Your task to perform on an android device: What's the weather going to be this weekend? Image 0: 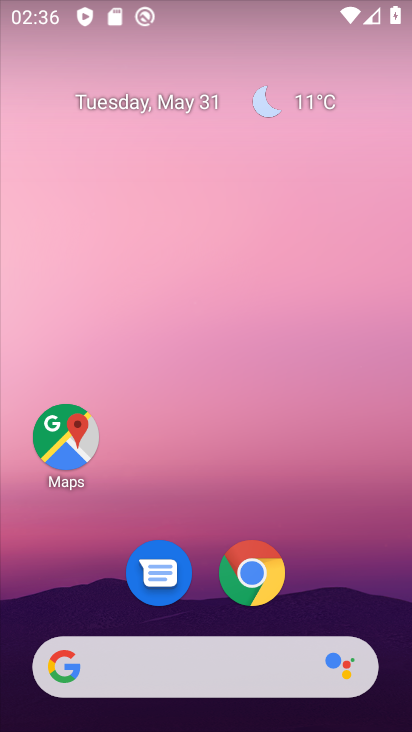
Step 0: click (269, 578)
Your task to perform on an android device: What's the weather going to be this weekend? Image 1: 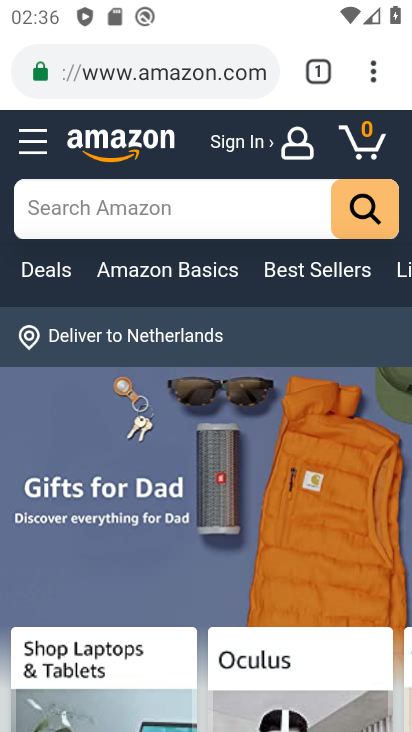
Step 1: click (212, 76)
Your task to perform on an android device: What's the weather going to be this weekend? Image 2: 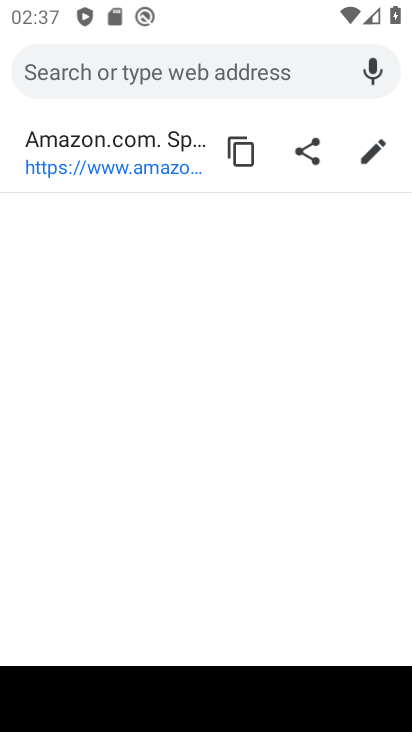
Step 2: type "What's the weather going to be this weekend?"
Your task to perform on an android device: What's the weather going to be this weekend? Image 3: 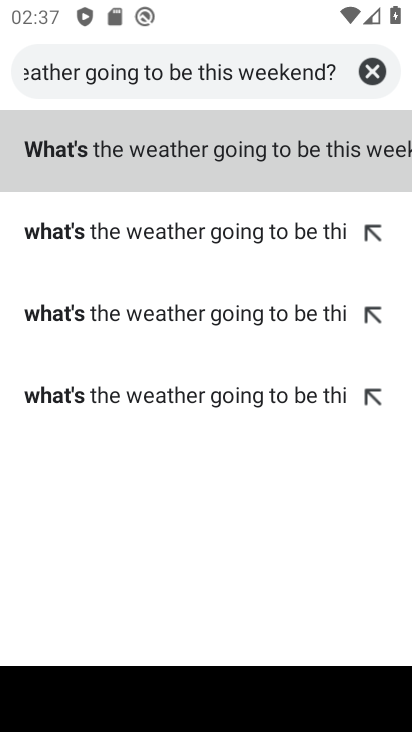
Step 3: click (309, 140)
Your task to perform on an android device: What's the weather going to be this weekend? Image 4: 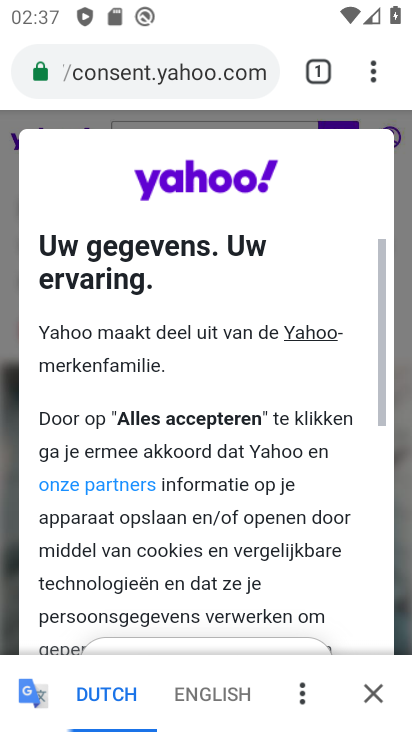
Step 4: drag from (317, 590) to (264, 237)
Your task to perform on an android device: What's the weather going to be this weekend? Image 5: 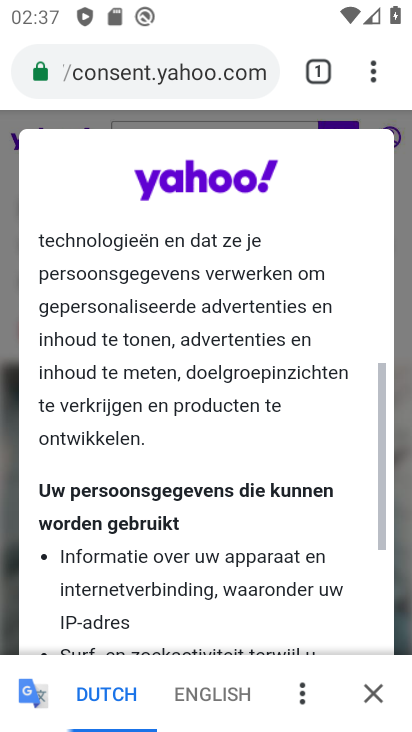
Step 5: drag from (267, 629) to (261, 306)
Your task to perform on an android device: What's the weather going to be this weekend? Image 6: 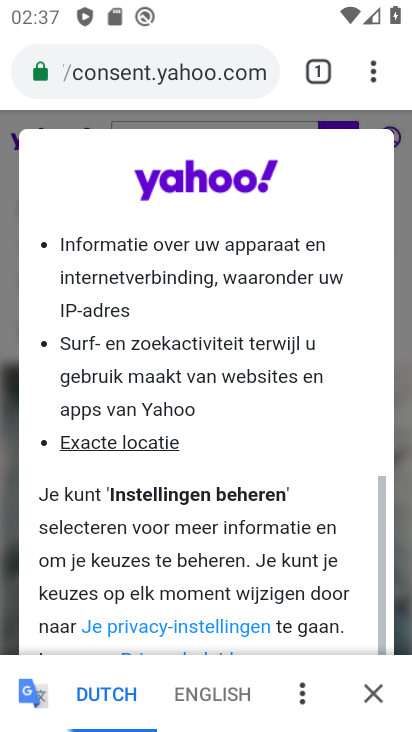
Step 6: drag from (247, 624) to (257, 255)
Your task to perform on an android device: What's the weather going to be this weekend? Image 7: 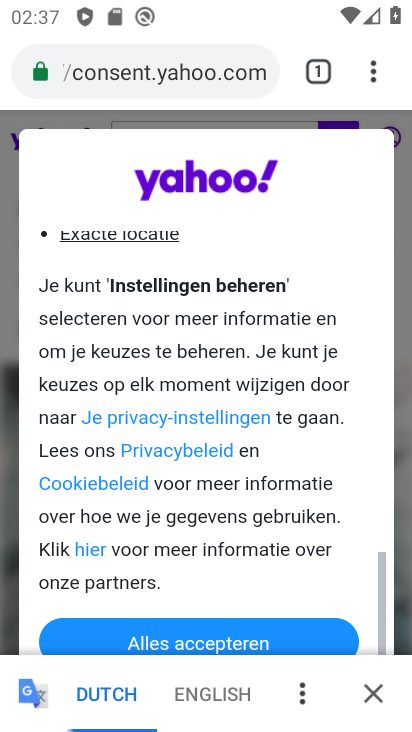
Step 7: click (260, 622)
Your task to perform on an android device: What's the weather going to be this weekend? Image 8: 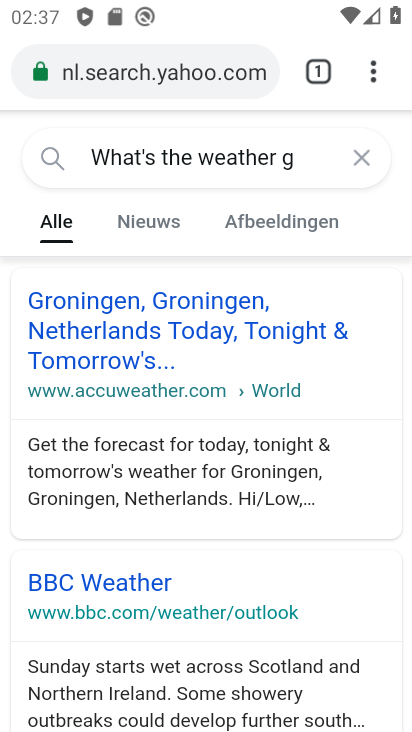
Step 8: click (143, 572)
Your task to perform on an android device: What's the weather going to be this weekend? Image 9: 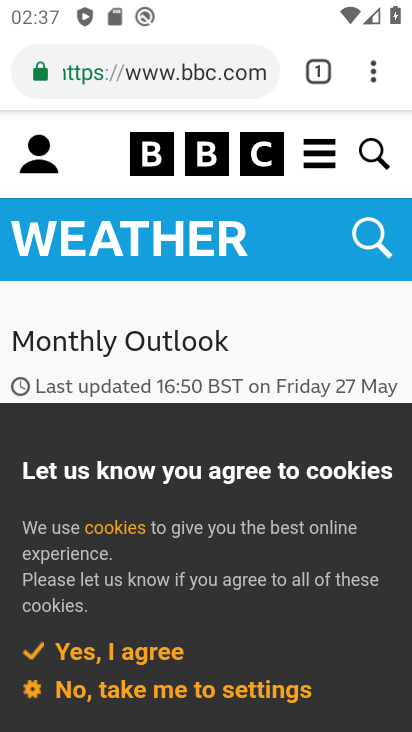
Step 9: task complete